Your task to perform on an android device: Open notification settings Image 0: 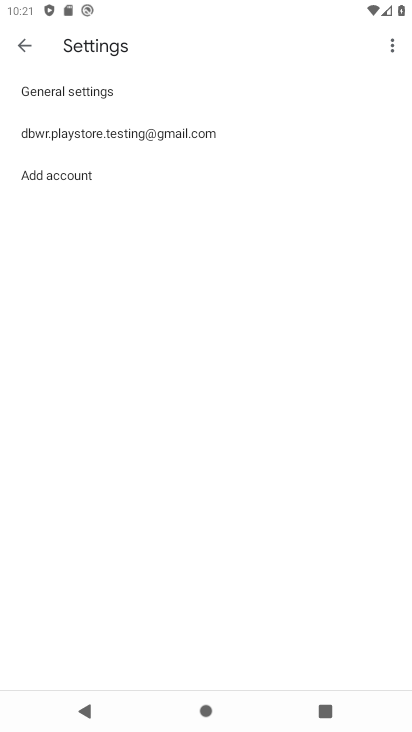
Step 0: press home button
Your task to perform on an android device: Open notification settings Image 1: 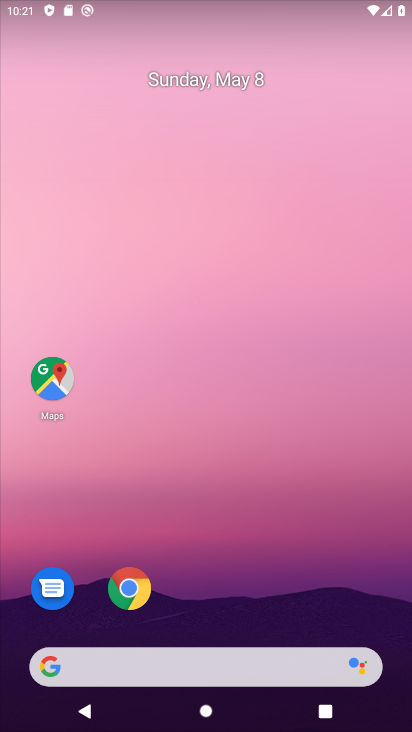
Step 1: drag from (276, 589) to (268, 82)
Your task to perform on an android device: Open notification settings Image 2: 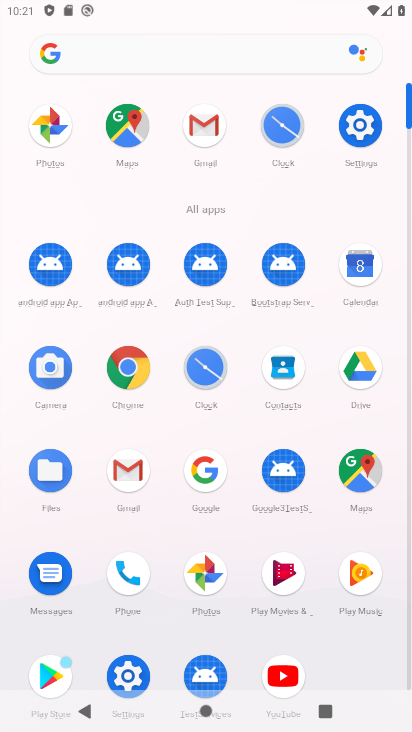
Step 2: click (352, 112)
Your task to perform on an android device: Open notification settings Image 3: 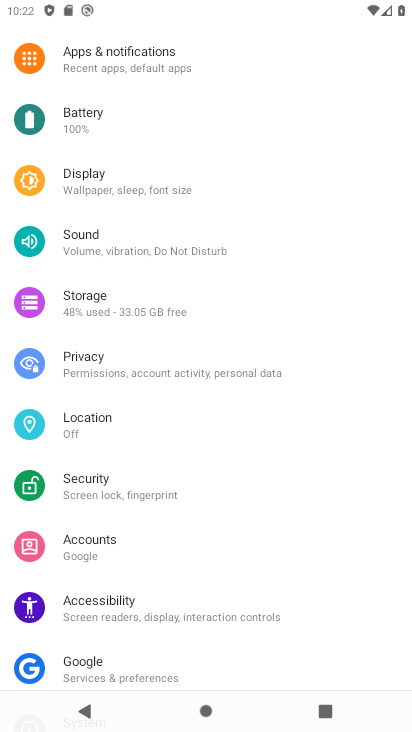
Step 3: click (165, 69)
Your task to perform on an android device: Open notification settings Image 4: 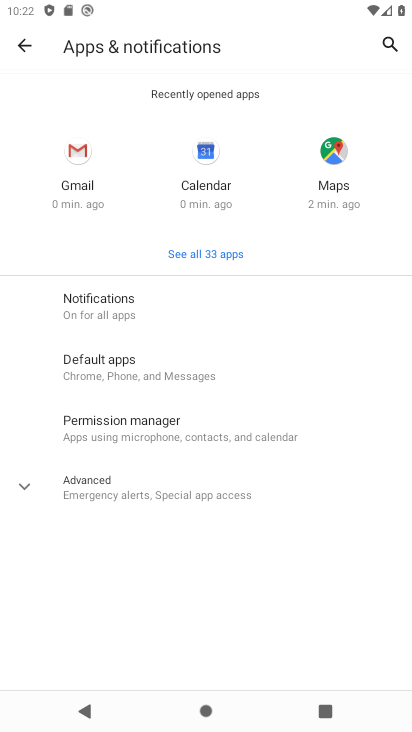
Step 4: task complete